Your task to perform on an android device: open app "Mercado Libre" (install if not already installed), go to login, and select forgot password Image 0: 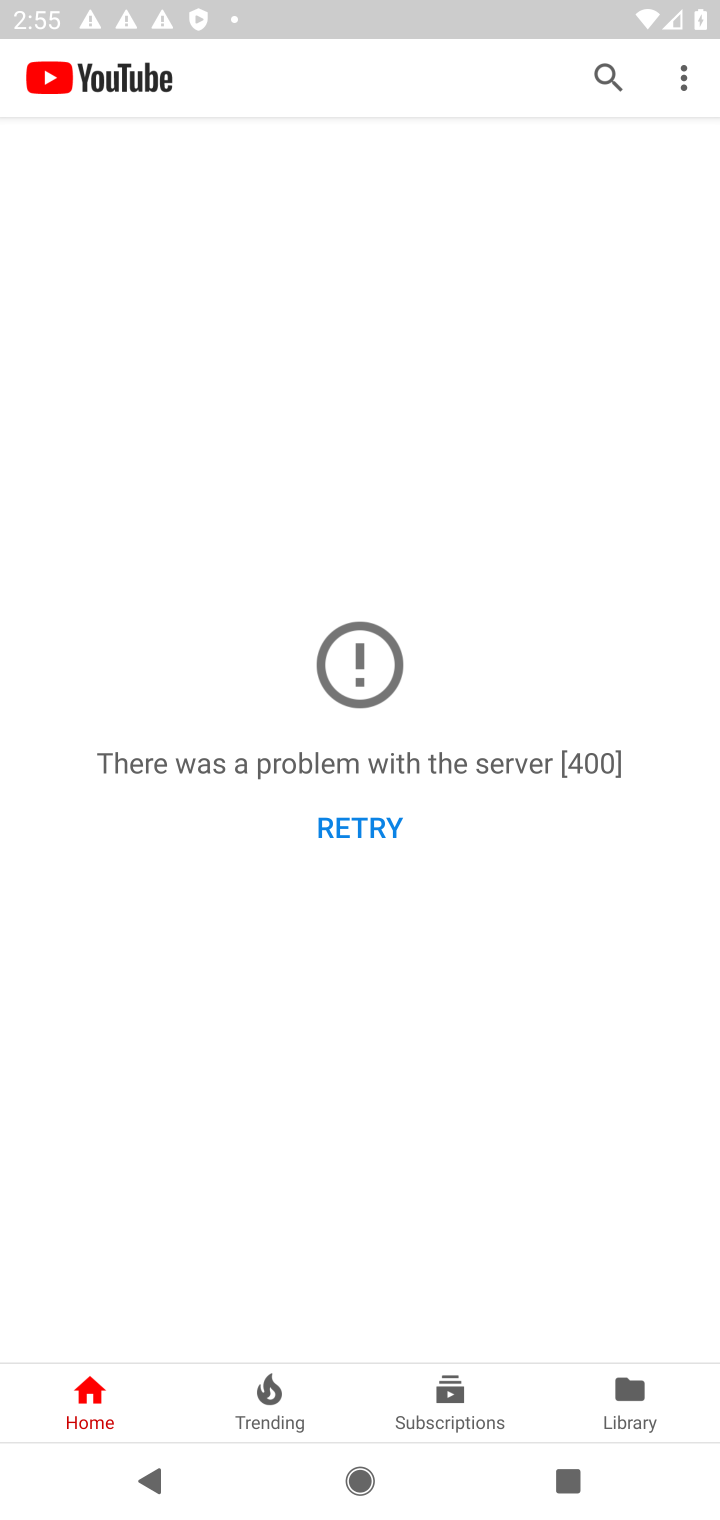
Step 0: press home button
Your task to perform on an android device: open app "Mercado Libre" (install if not already installed), go to login, and select forgot password Image 1: 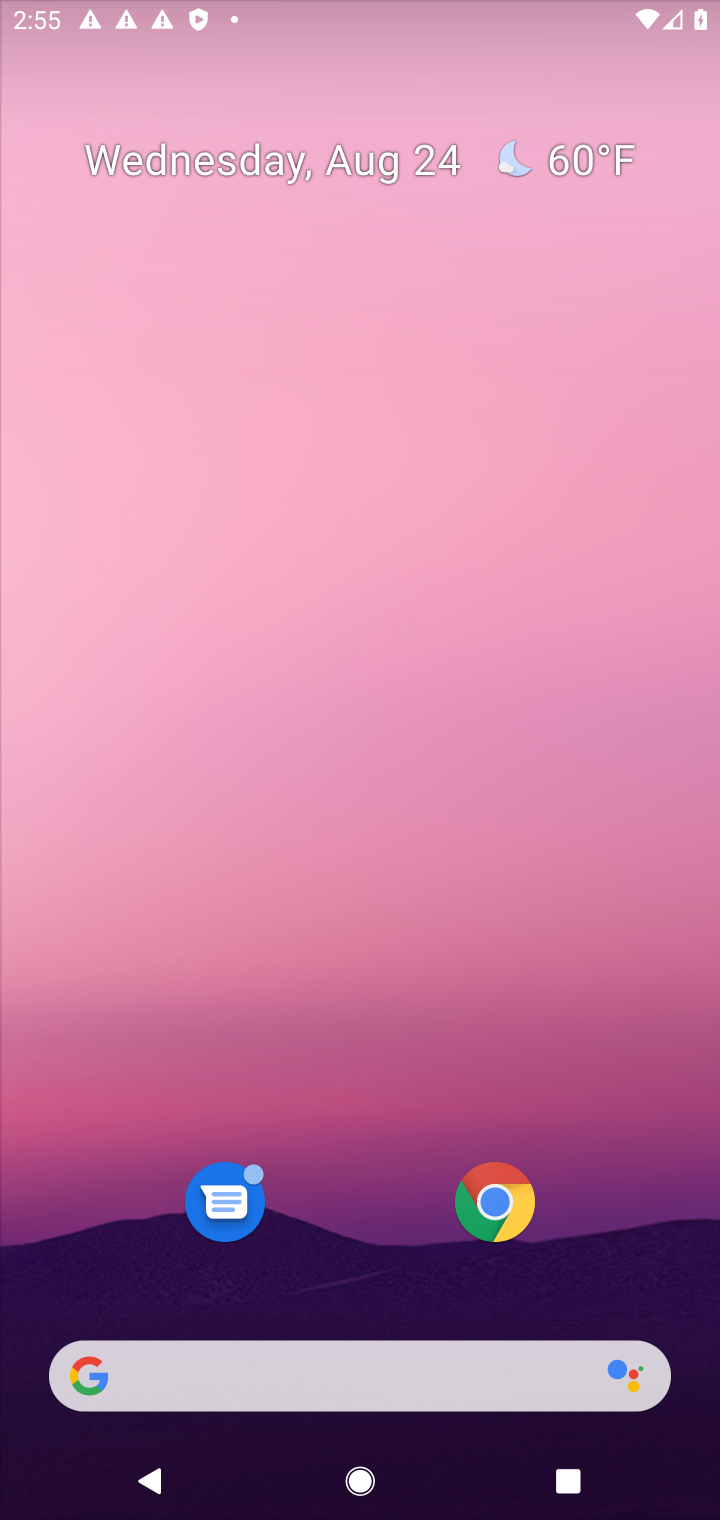
Step 1: drag from (393, 1064) to (485, 76)
Your task to perform on an android device: open app "Mercado Libre" (install if not already installed), go to login, and select forgot password Image 2: 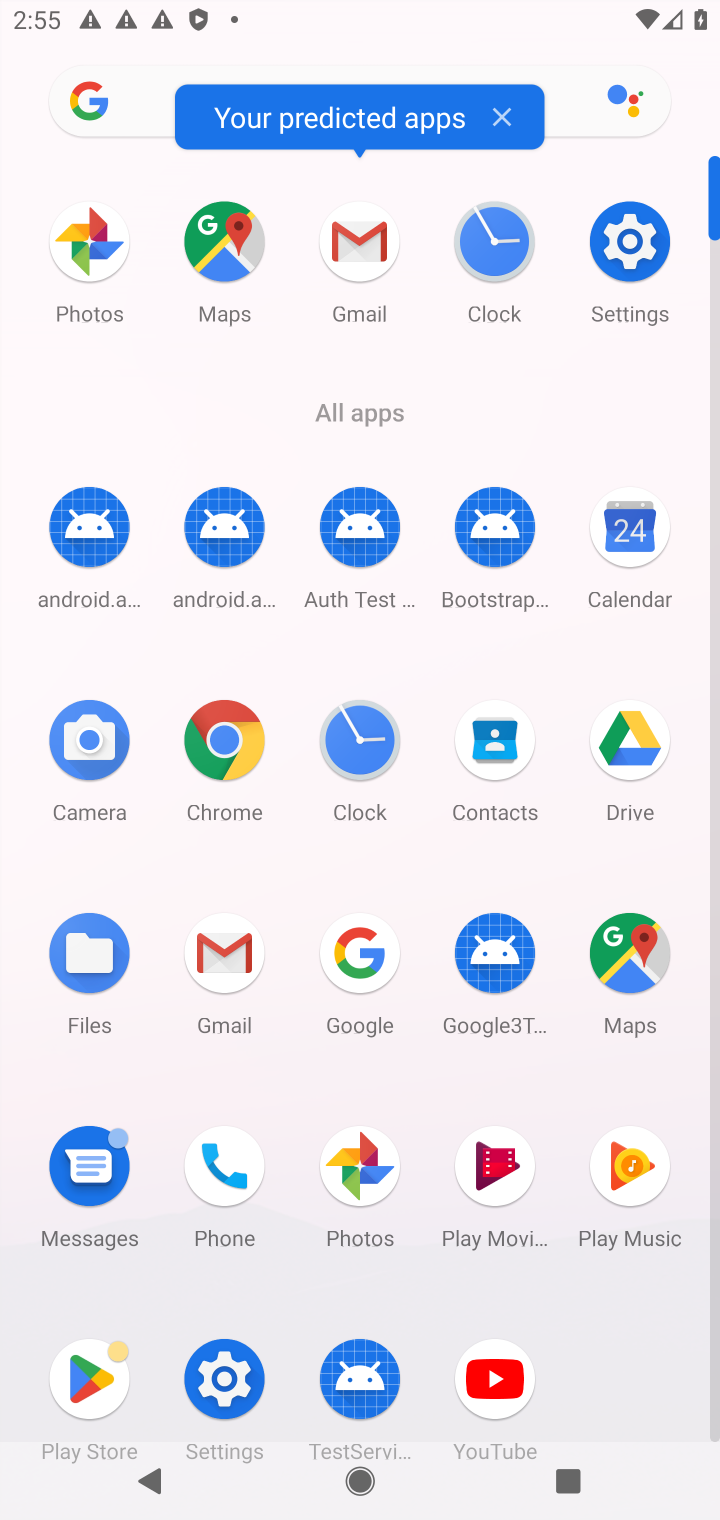
Step 2: click (90, 1384)
Your task to perform on an android device: open app "Mercado Libre" (install if not already installed), go to login, and select forgot password Image 3: 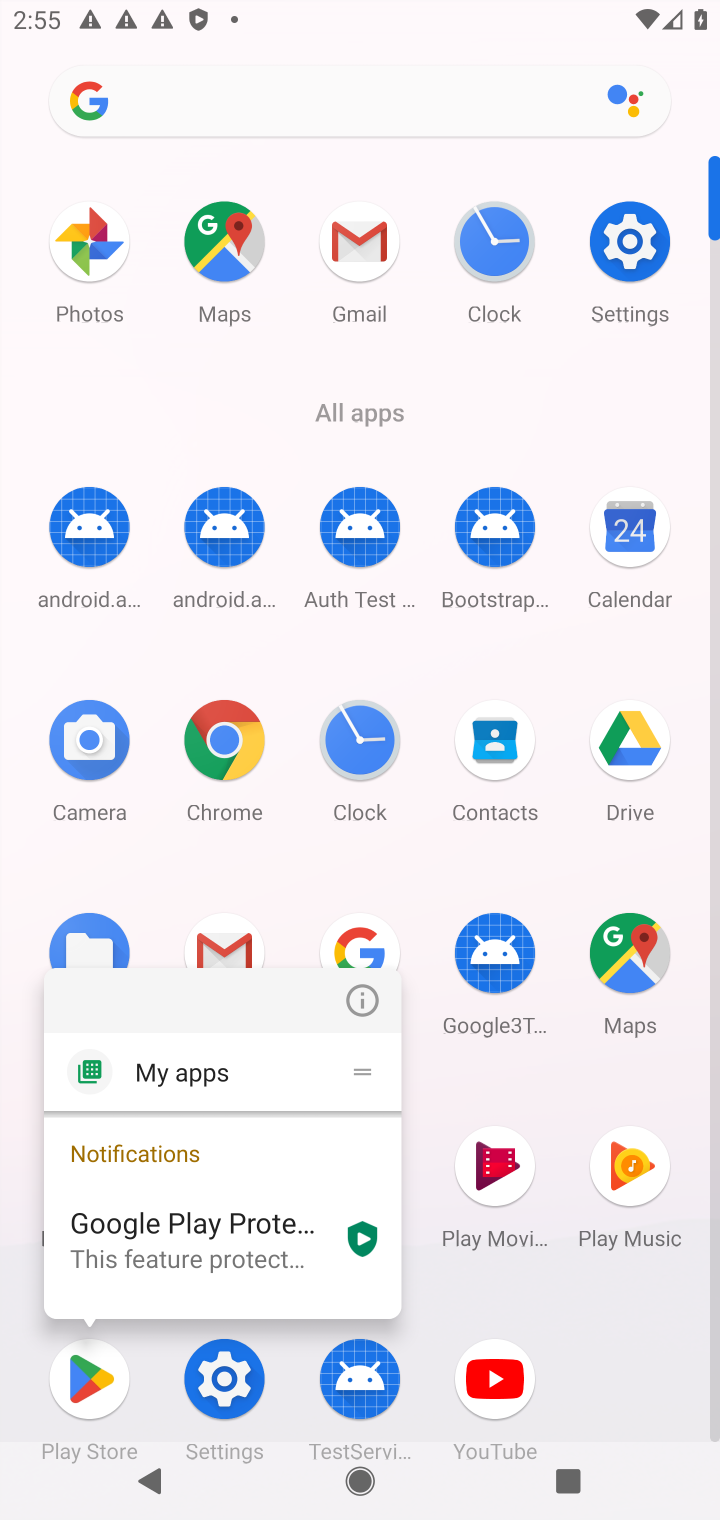
Step 3: click (77, 1386)
Your task to perform on an android device: open app "Mercado Libre" (install if not already installed), go to login, and select forgot password Image 4: 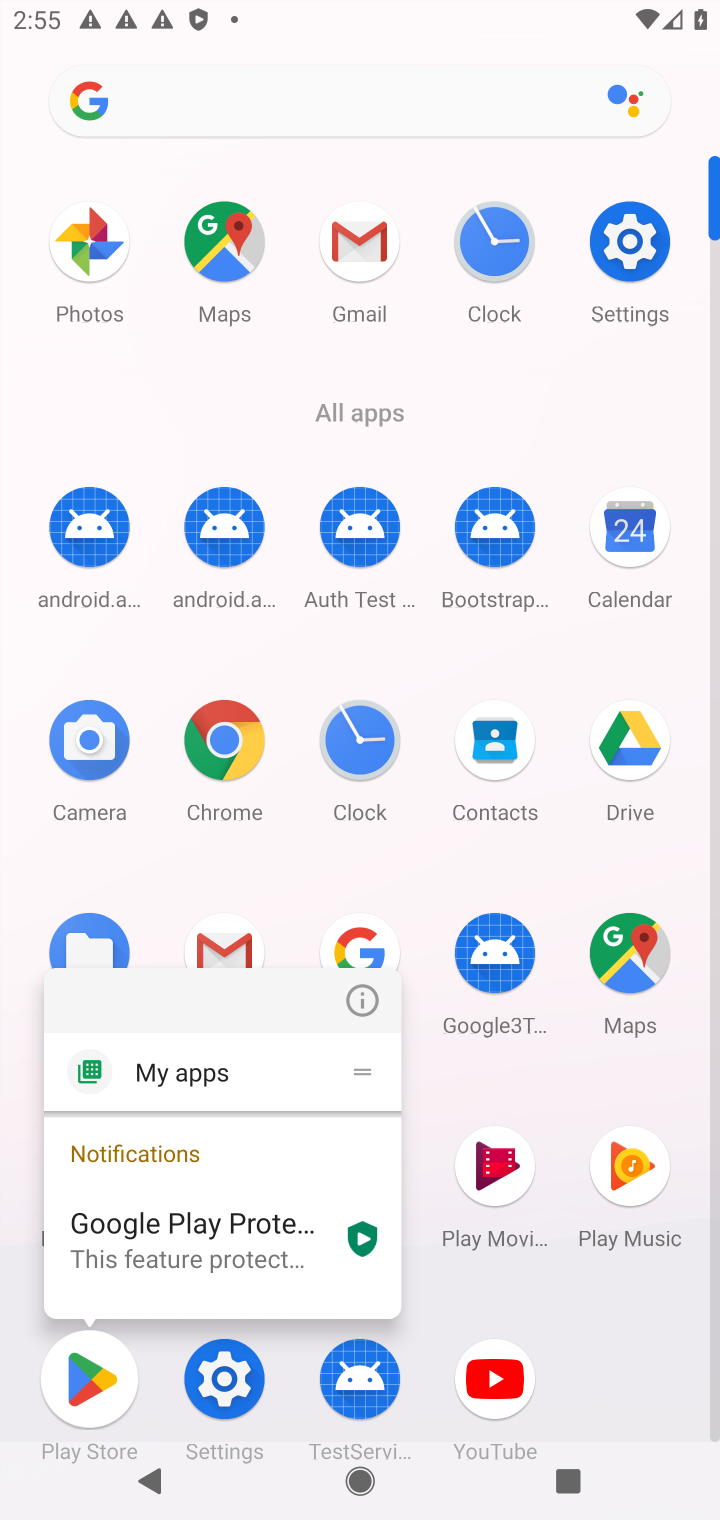
Step 4: click (77, 1386)
Your task to perform on an android device: open app "Mercado Libre" (install if not already installed), go to login, and select forgot password Image 5: 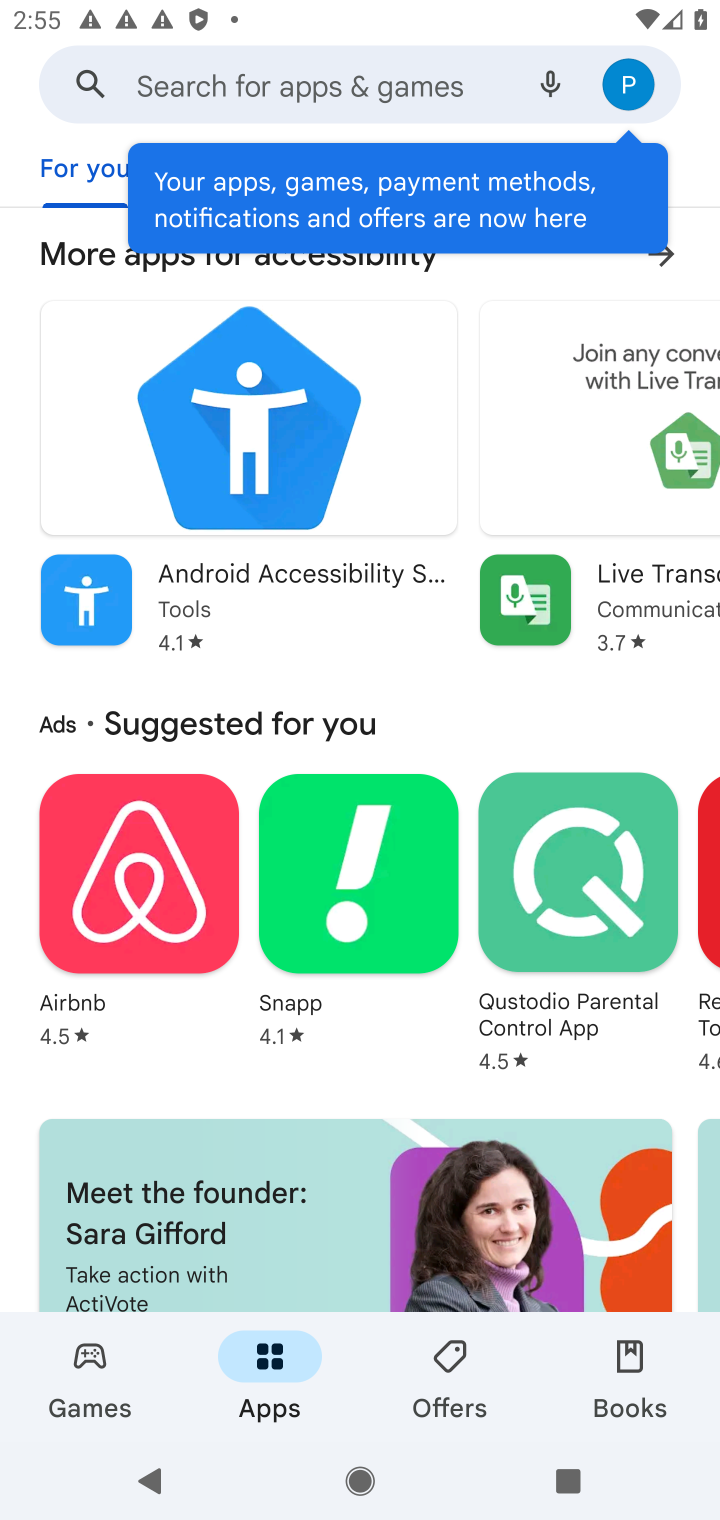
Step 5: click (385, 90)
Your task to perform on an android device: open app "Mercado Libre" (install if not already installed), go to login, and select forgot password Image 6: 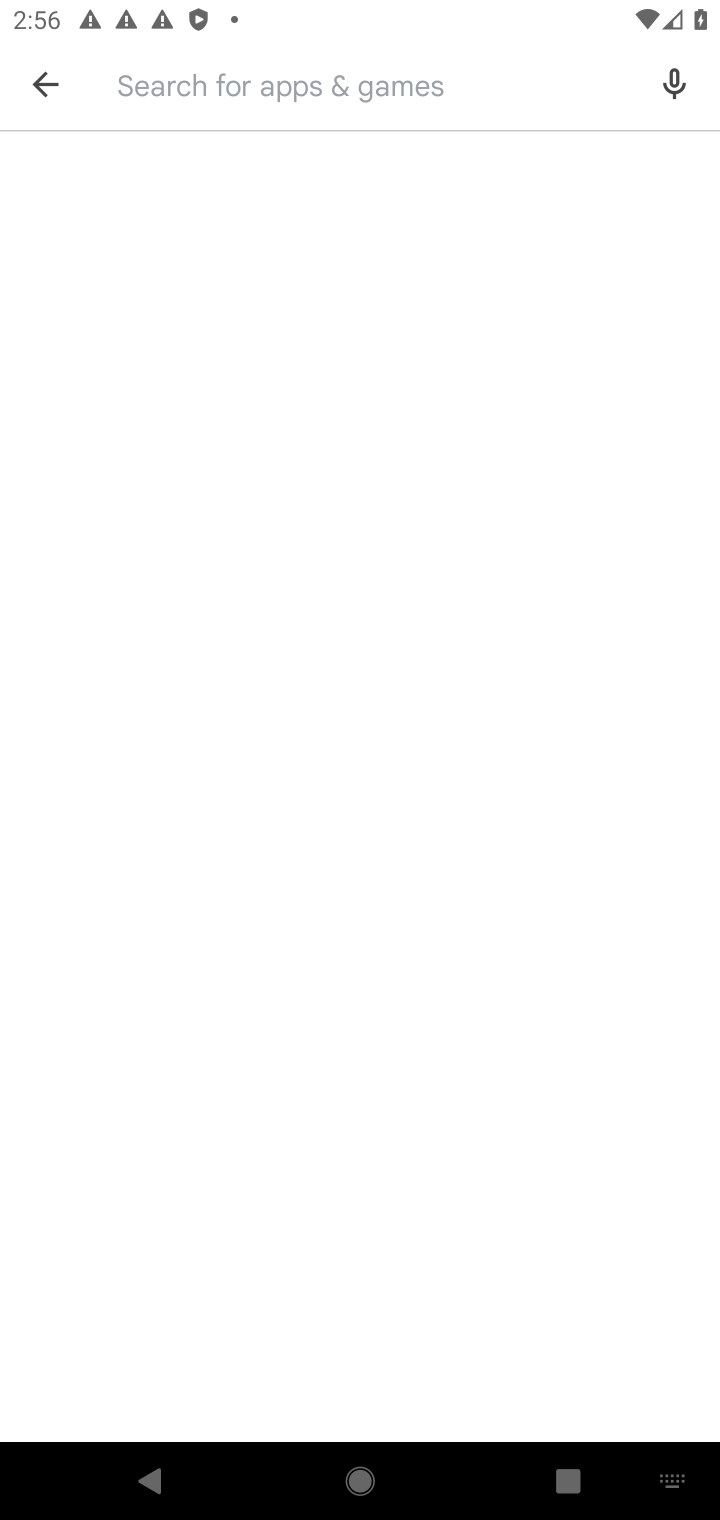
Step 6: type "Mercado Libre"
Your task to perform on an android device: open app "Mercado Libre" (install if not already installed), go to login, and select forgot password Image 7: 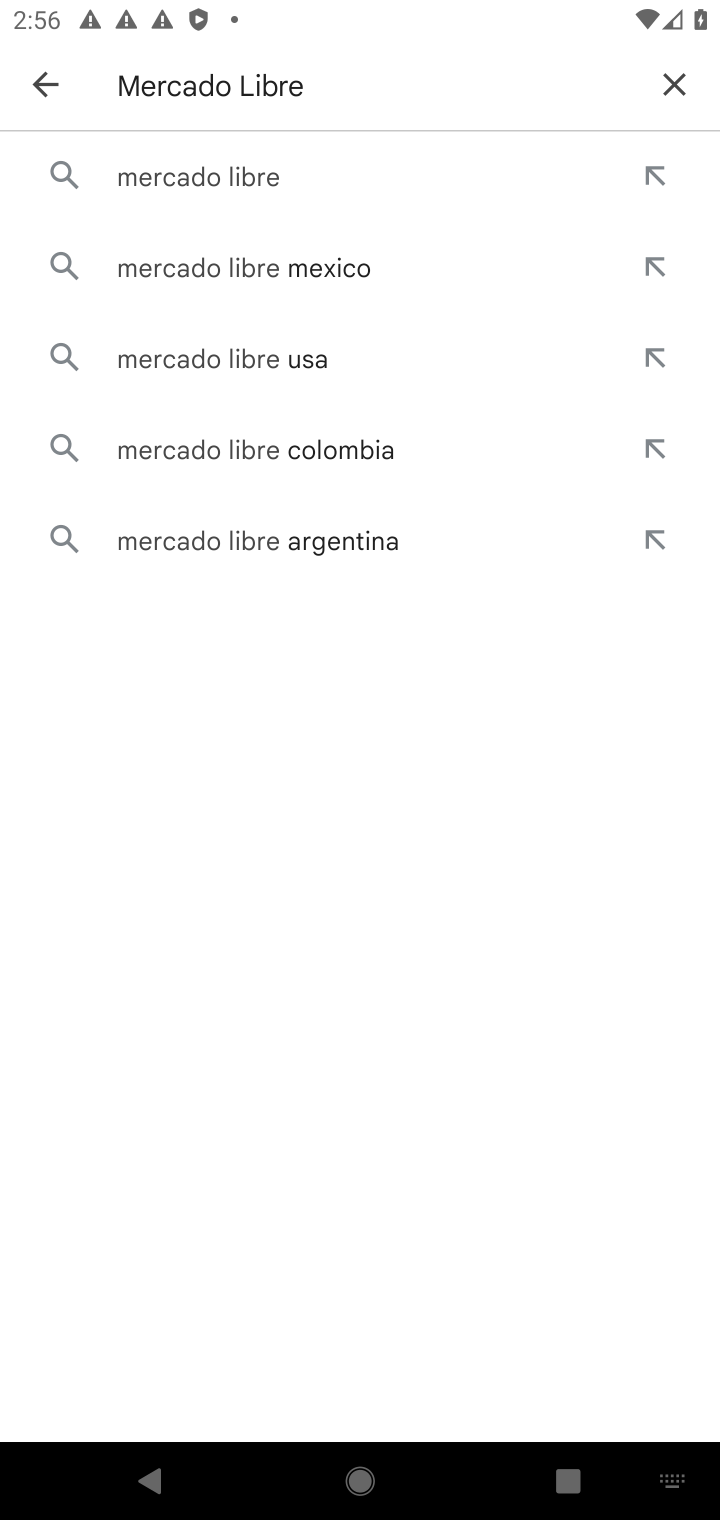
Step 7: click (235, 174)
Your task to perform on an android device: open app "Mercado Libre" (install if not already installed), go to login, and select forgot password Image 8: 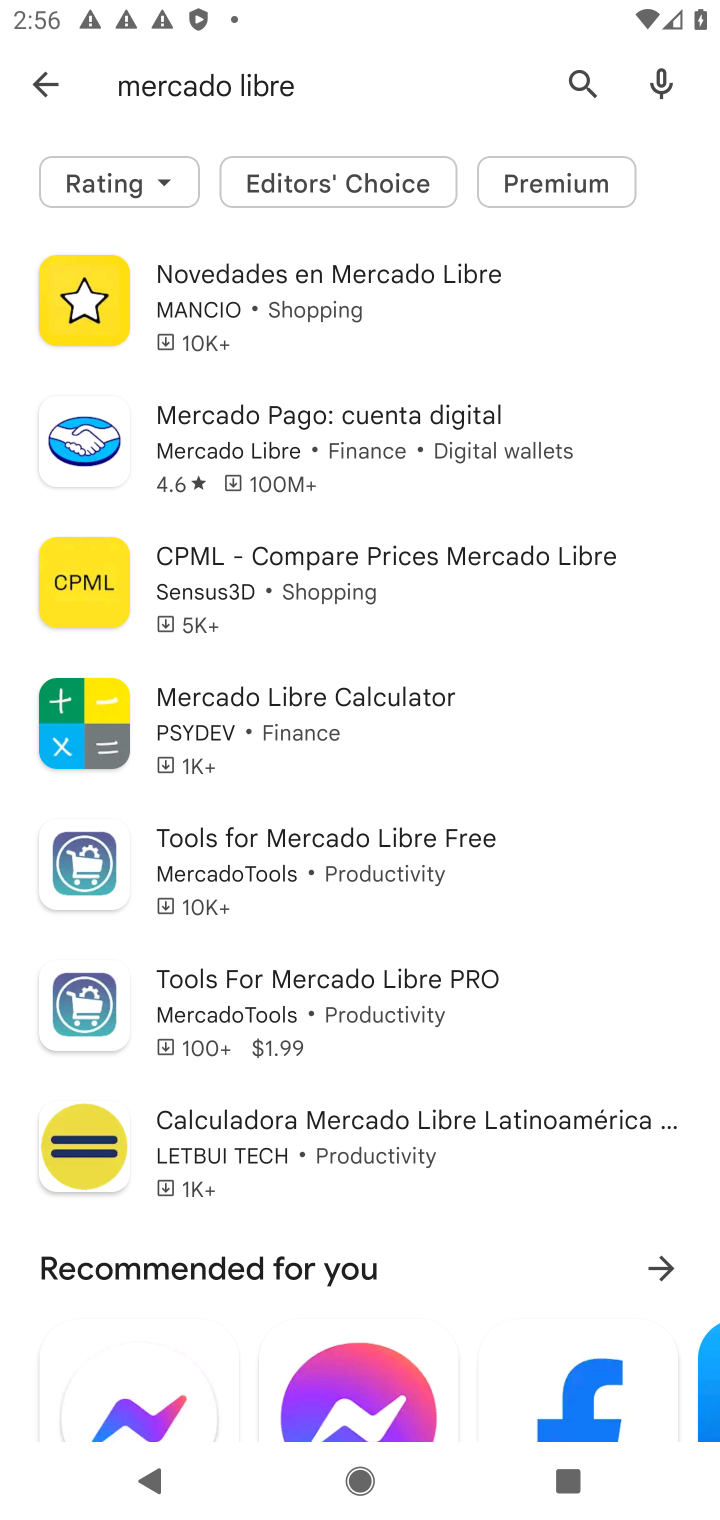
Step 8: task complete